Your task to perform on an android device: turn on location history Image 0: 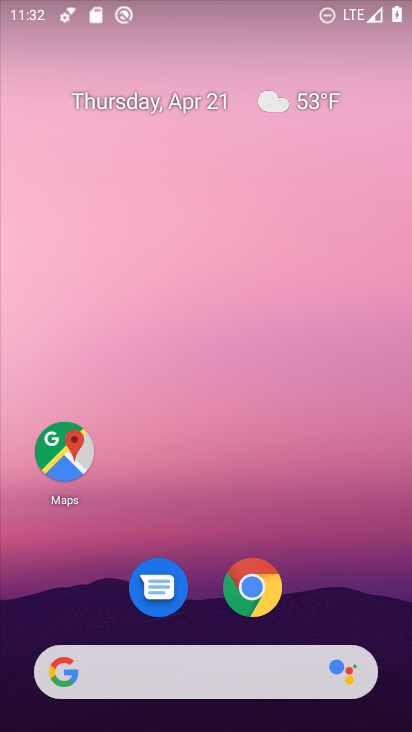
Step 0: drag from (205, 673) to (150, 162)
Your task to perform on an android device: turn on location history Image 1: 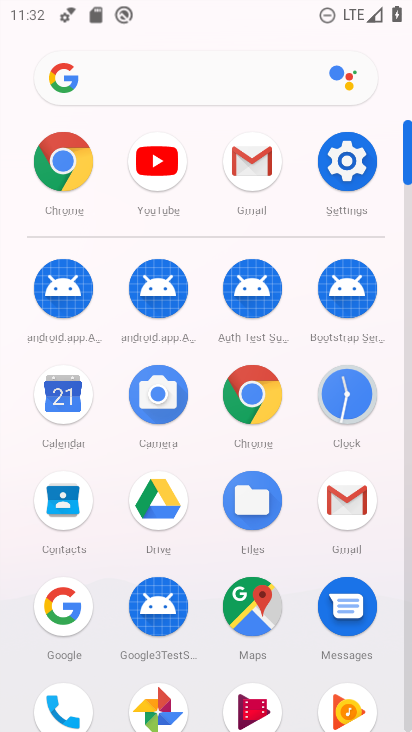
Step 1: click (360, 175)
Your task to perform on an android device: turn on location history Image 2: 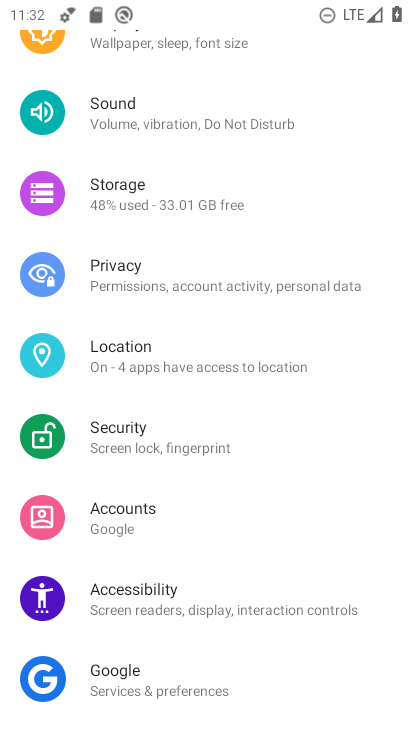
Step 2: click (116, 363)
Your task to perform on an android device: turn on location history Image 3: 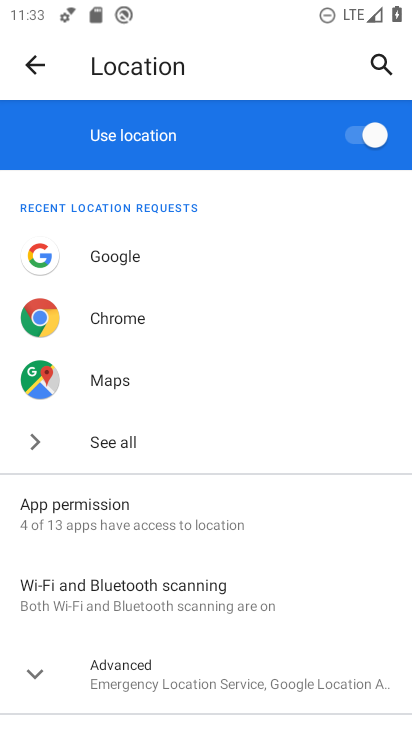
Step 3: click (104, 649)
Your task to perform on an android device: turn on location history Image 4: 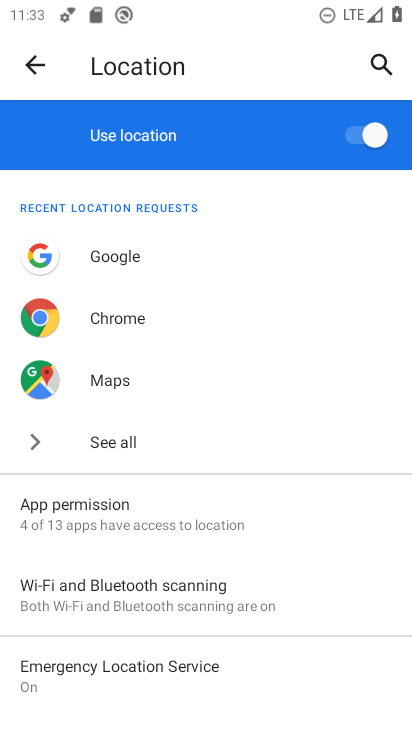
Step 4: drag from (156, 605) to (148, 112)
Your task to perform on an android device: turn on location history Image 5: 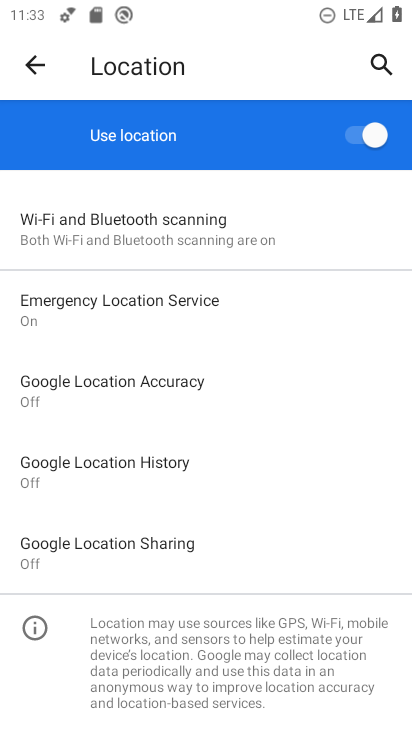
Step 5: click (126, 474)
Your task to perform on an android device: turn on location history Image 6: 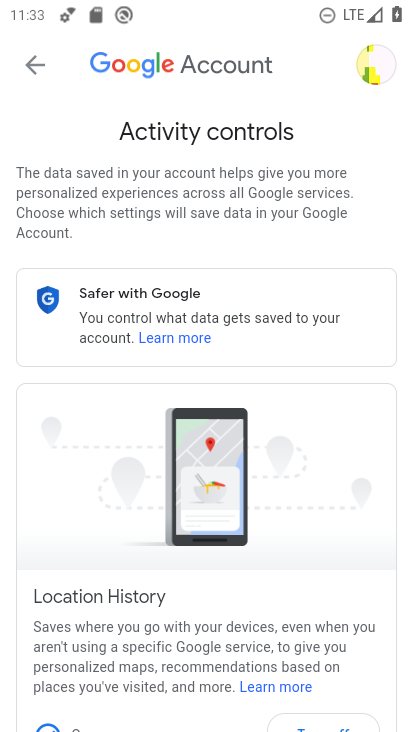
Step 6: task complete